Your task to perform on an android device: Go to location settings Image 0: 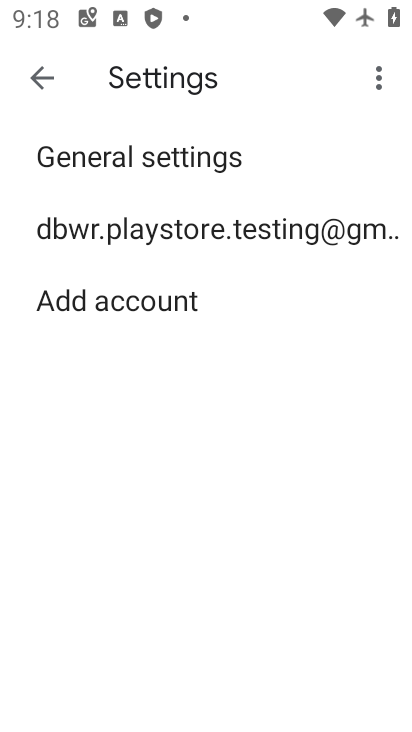
Step 0: press home button
Your task to perform on an android device: Go to location settings Image 1: 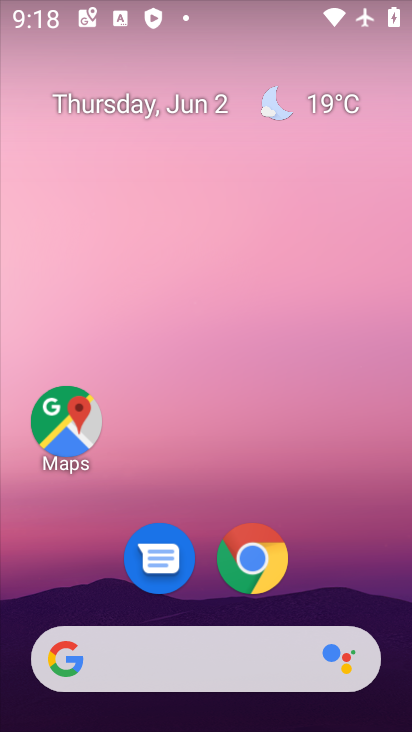
Step 1: drag from (408, 632) to (287, 13)
Your task to perform on an android device: Go to location settings Image 2: 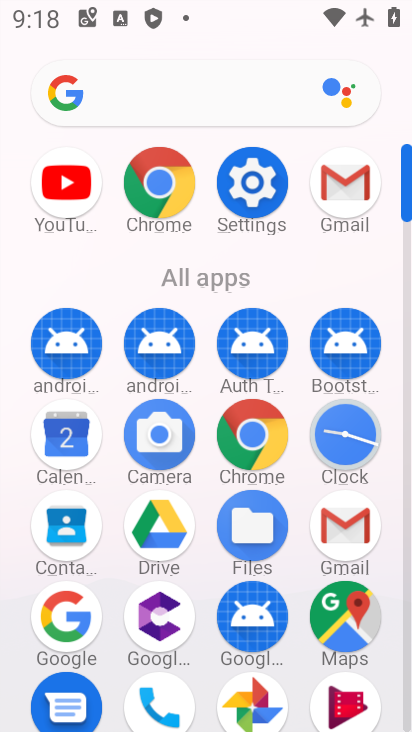
Step 2: click (410, 703)
Your task to perform on an android device: Go to location settings Image 3: 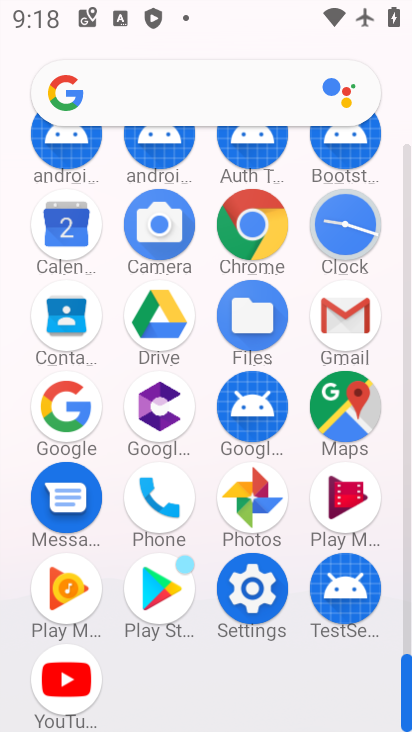
Step 3: click (249, 588)
Your task to perform on an android device: Go to location settings Image 4: 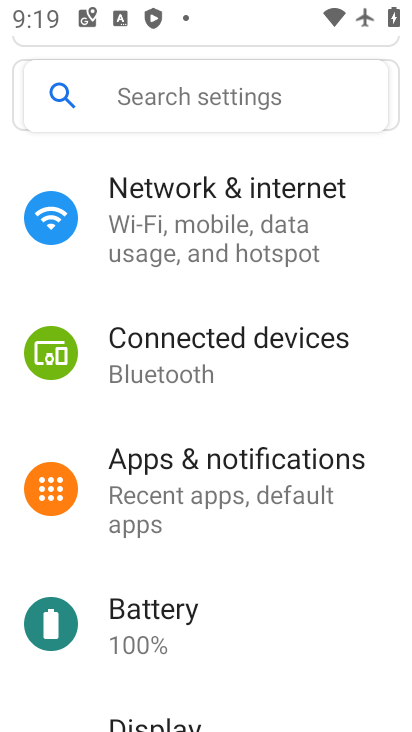
Step 4: drag from (255, 639) to (207, 234)
Your task to perform on an android device: Go to location settings Image 5: 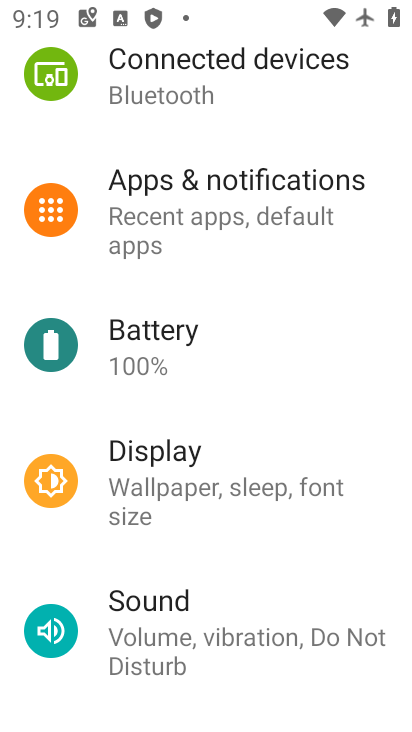
Step 5: drag from (270, 595) to (298, 308)
Your task to perform on an android device: Go to location settings Image 6: 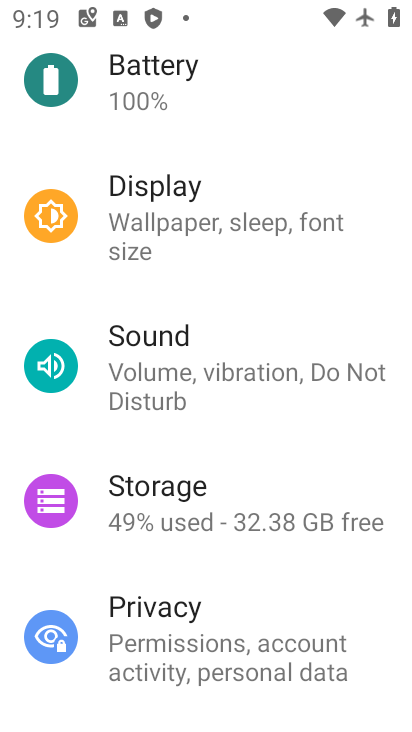
Step 6: drag from (230, 648) to (225, 207)
Your task to perform on an android device: Go to location settings Image 7: 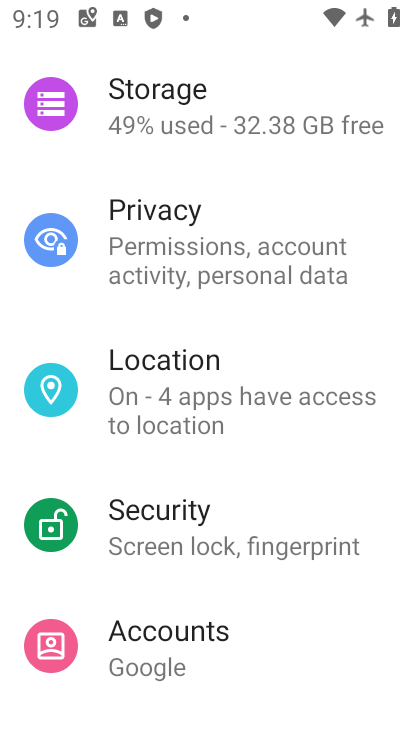
Step 7: click (161, 370)
Your task to perform on an android device: Go to location settings Image 8: 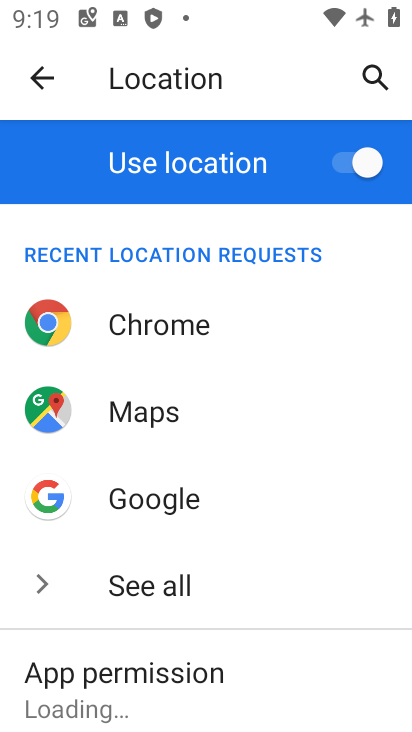
Step 8: drag from (259, 630) to (290, 210)
Your task to perform on an android device: Go to location settings Image 9: 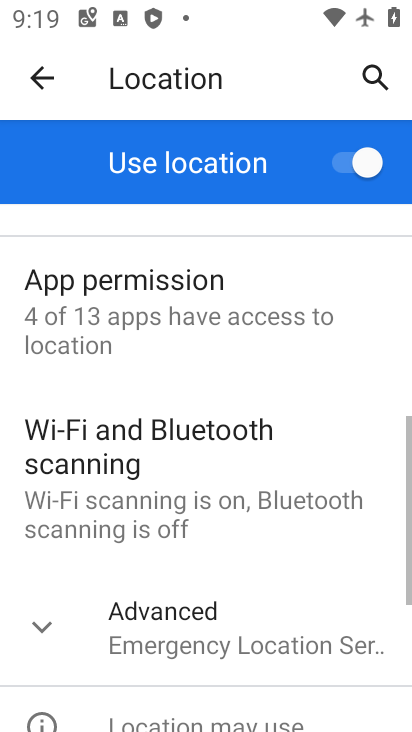
Step 9: click (36, 620)
Your task to perform on an android device: Go to location settings Image 10: 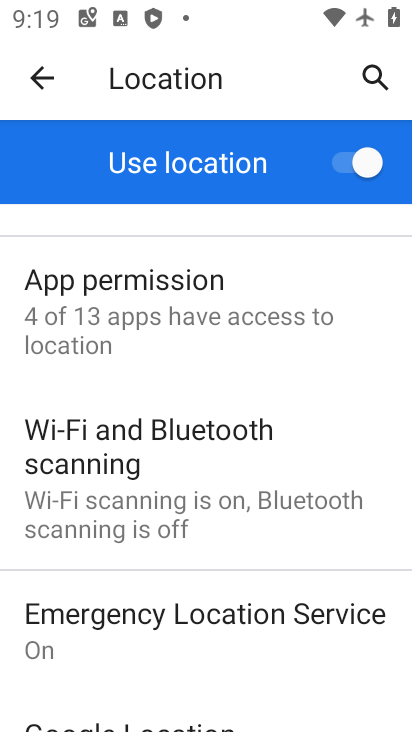
Step 10: task complete